Your task to perform on an android device: Go to sound settings Image 0: 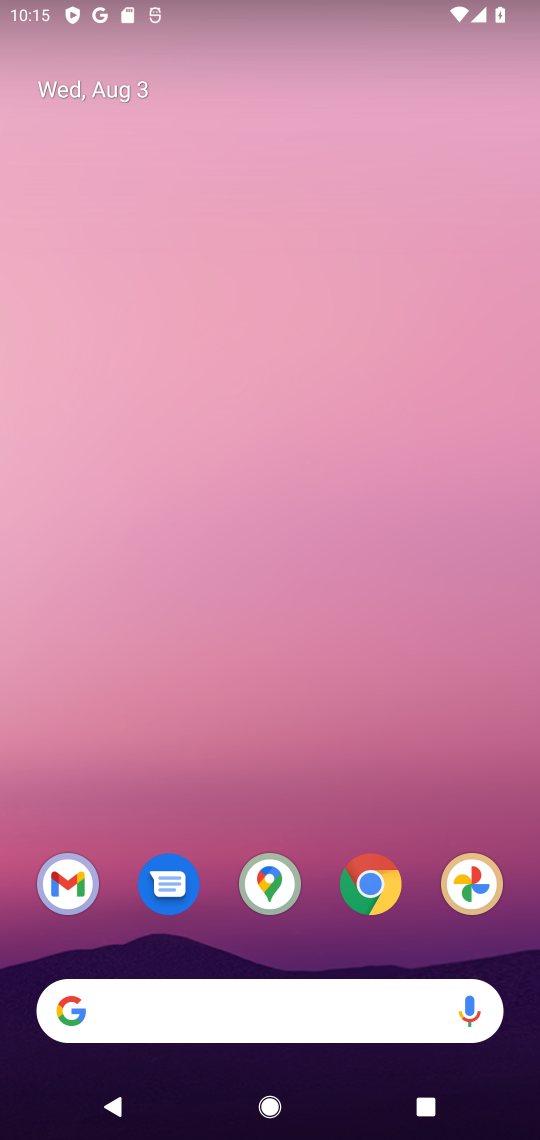
Step 0: drag from (244, 960) to (186, 181)
Your task to perform on an android device: Go to sound settings Image 1: 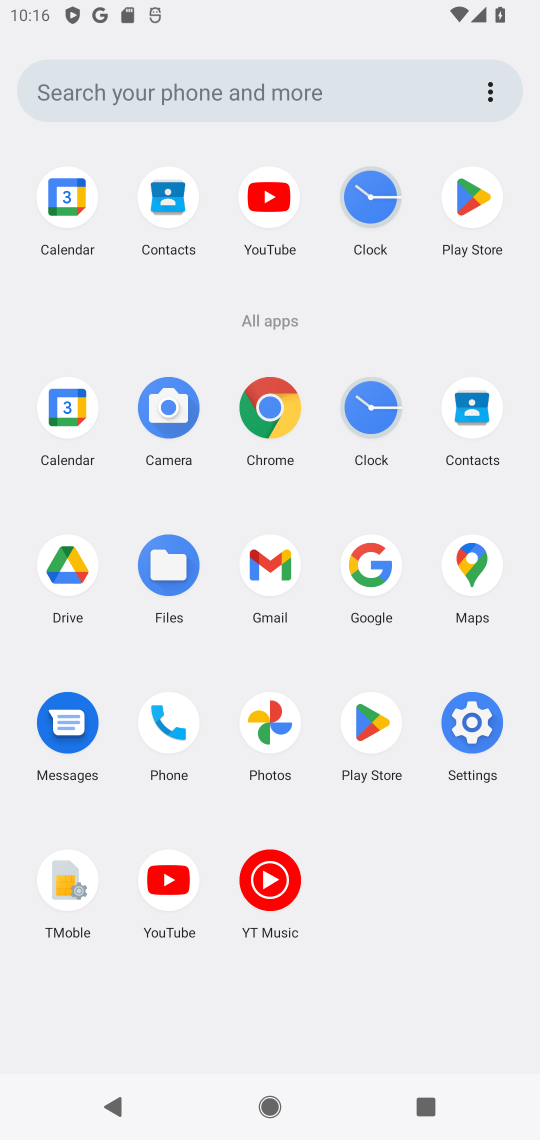
Step 1: click (477, 720)
Your task to perform on an android device: Go to sound settings Image 2: 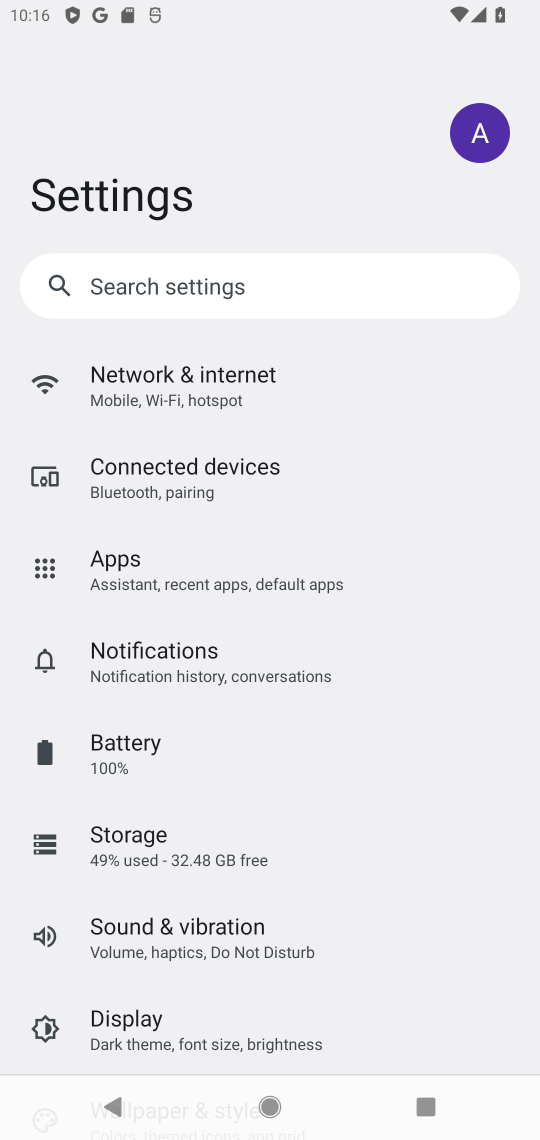
Step 2: click (144, 928)
Your task to perform on an android device: Go to sound settings Image 3: 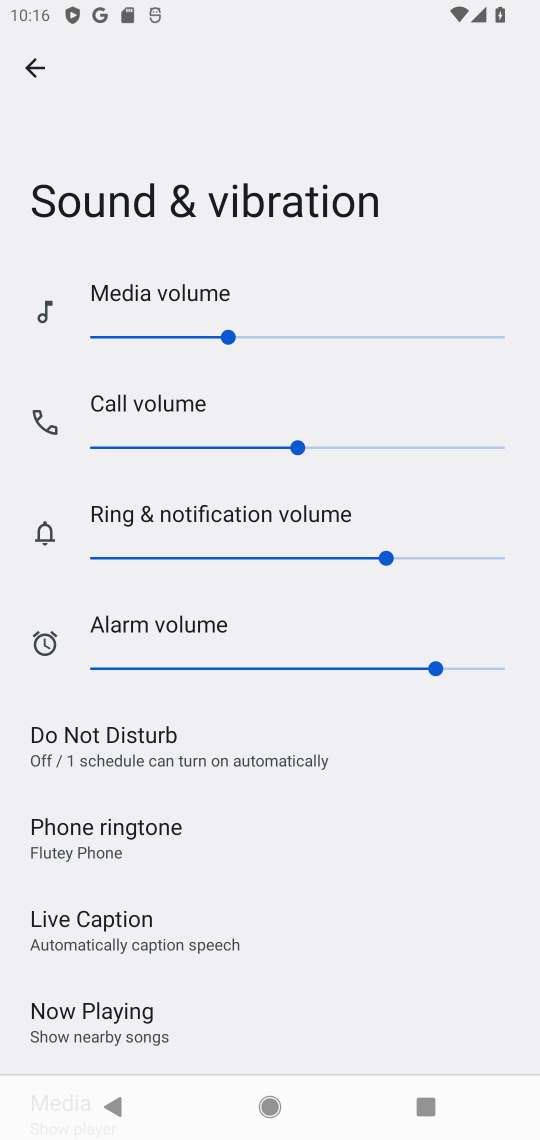
Step 3: task complete